Your task to perform on an android device: add a contact in the contacts app Image 0: 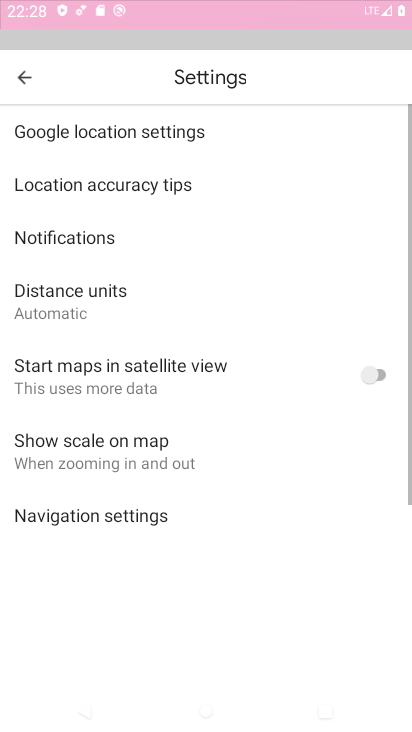
Step 0: press home button
Your task to perform on an android device: add a contact in the contacts app Image 1: 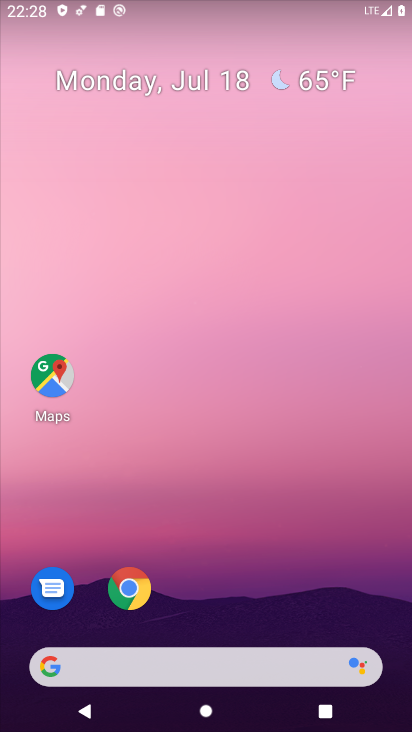
Step 1: drag from (248, 591) to (265, 101)
Your task to perform on an android device: add a contact in the contacts app Image 2: 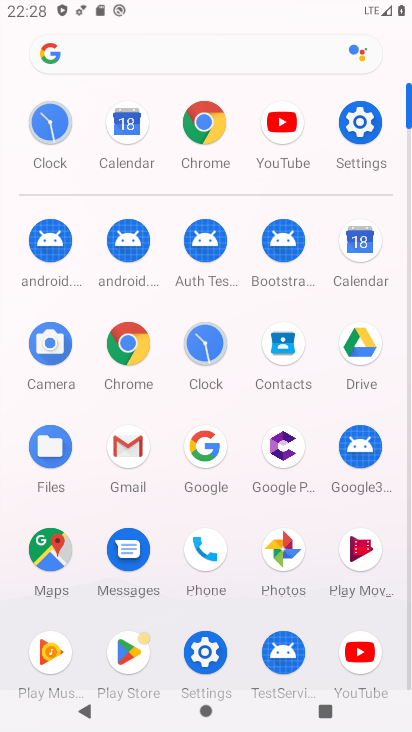
Step 2: click (284, 355)
Your task to perform on an android device: add a contact in the contacts app Image 3: 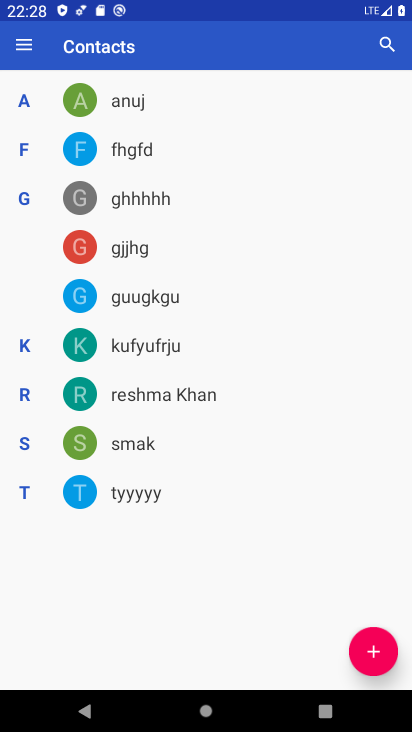
Step 3: click (375, 658)
Your task to perform on an android device: add a contact in the contacts app Image 4: 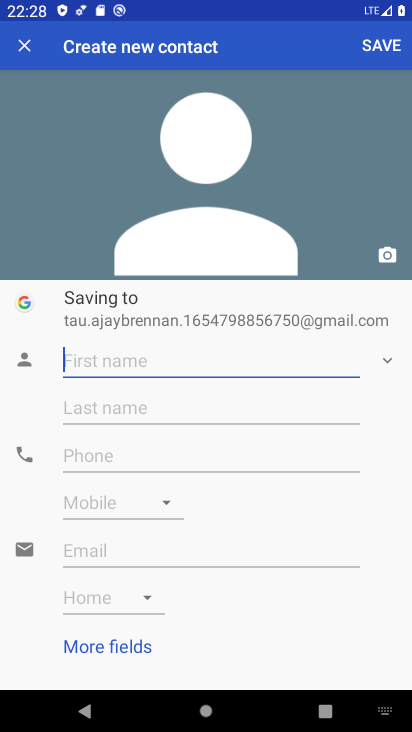
Step 4: type "dfdfgfhhhh"
Your task to perform on an android device: add a contact in the contacts app Image 5: 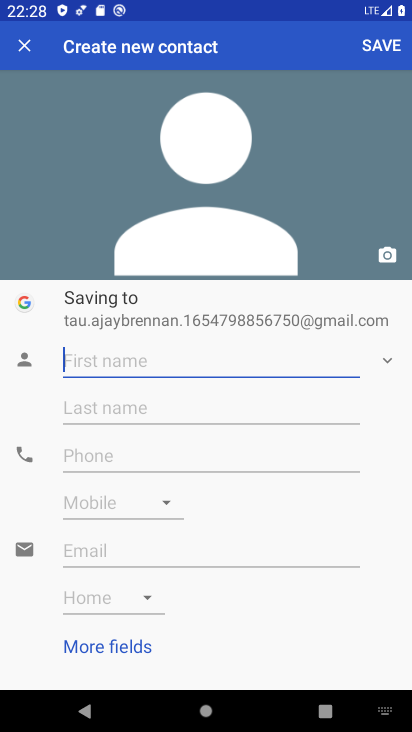
Step 5: click (104, 354)
Your task to perform on an android device: add a contact in the contacts app Image 6: 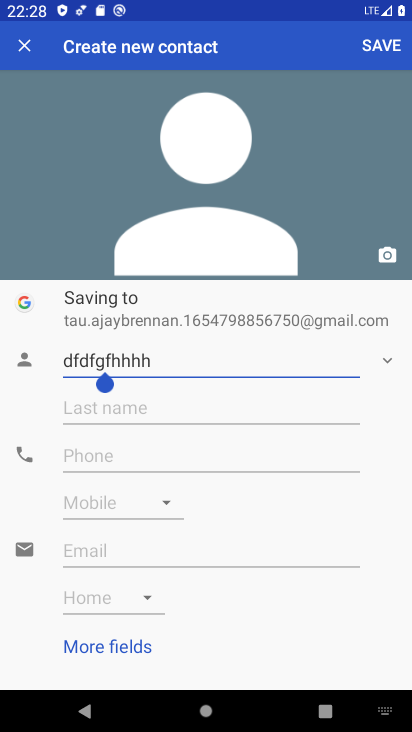
Step 6: click (121, 455)
Your task to perform on an android device: add a contact in the contacts app Image 7: 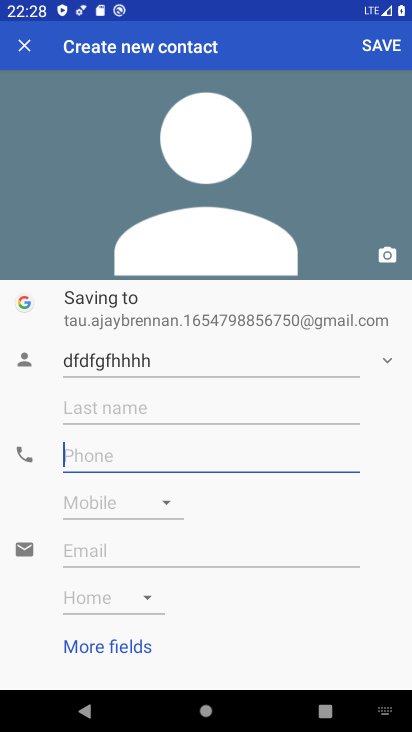
Step 7: type "4455466364333"
Your task to perform on an android device: add a contact in the contacts app Image 8: 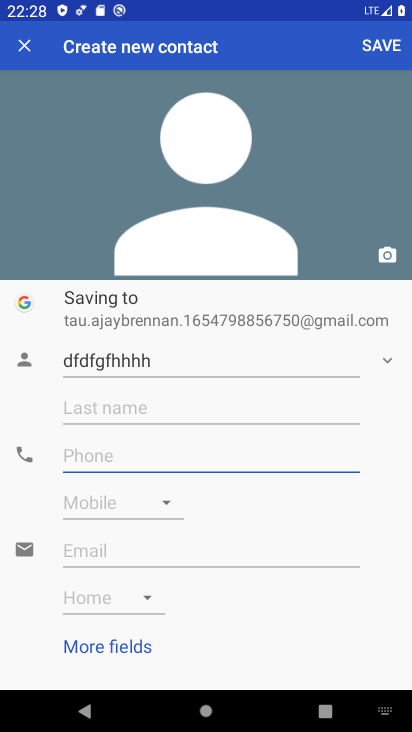
Step 8: click (132, 459)
Your task to perform on an android device: add a contact in the contacts app Image 9: 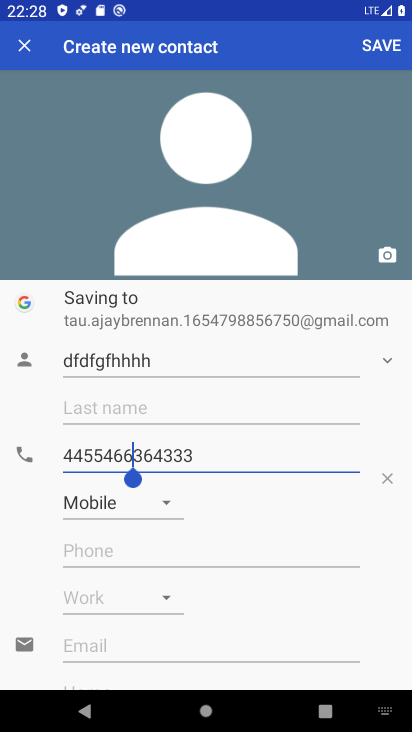
Step 9: click (393, 41)
Your task to perform on an android device: add a contact in the contacts app Image 10: 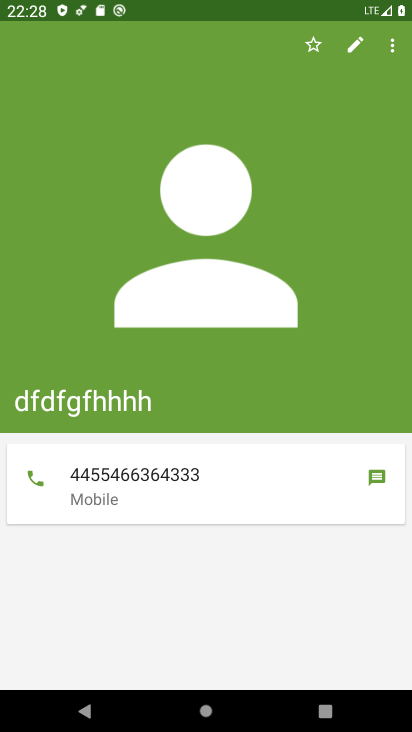
Step 10: task complete